Your task to perform on an android device: change the clock style Image 0: 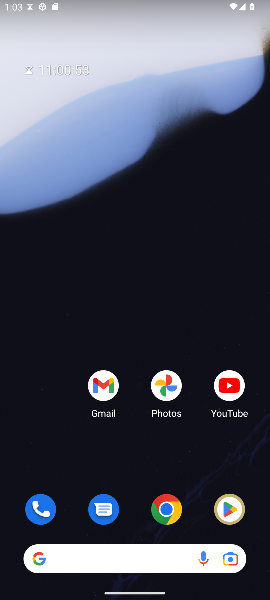
Step 0: press home button
Your task to perform on an android device: change the clock style Image 1: 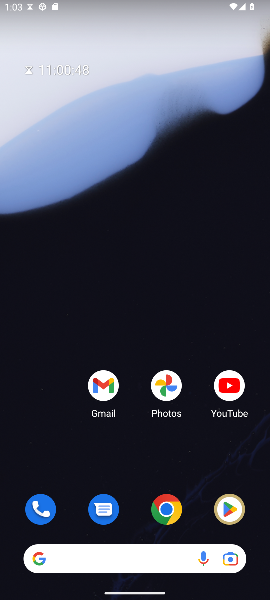
Step 1: drag from (123, 522) to (205, 95)
Your task to perform on an android device: change the clock style Image 2: 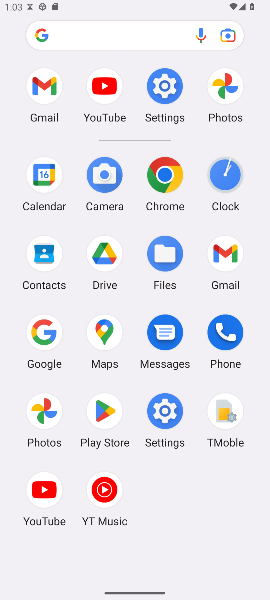
Step 2: click (224, 183)
Your task to perform on an android device: change the clock style Image 3: 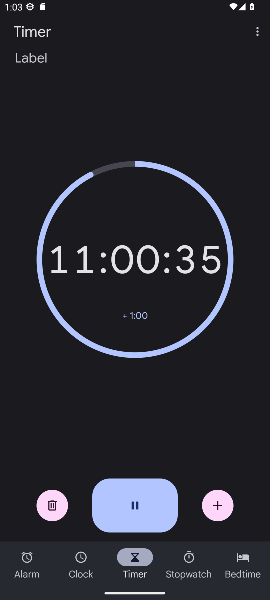
Step 3: click (257, 43)
Your task to perform on an android device: change the clock style Image 4: 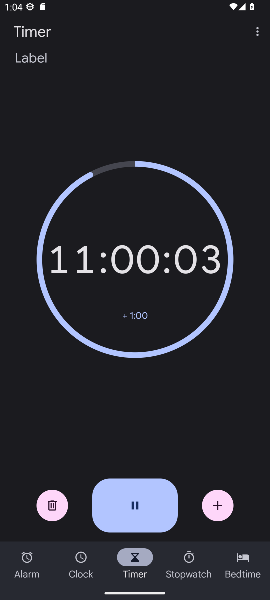
Step 4: click (251, 28)
Your task to perform on an android device: change the clock style Image 5: 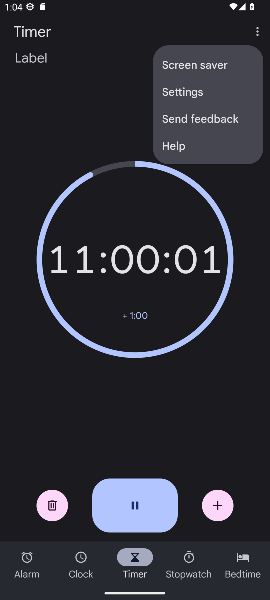
Step 5: click (179, 93)
Your task to perform on an android device: change the clock style Image 6: 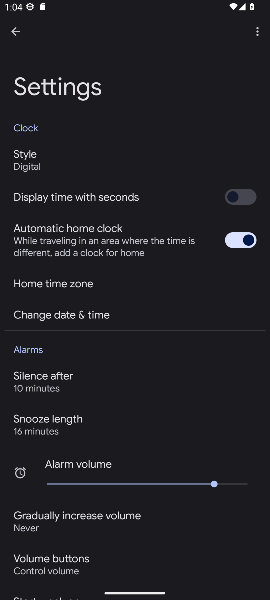
Step 6: click (35, 161)
Your task to perform on an android device: change the clock style Image 7: 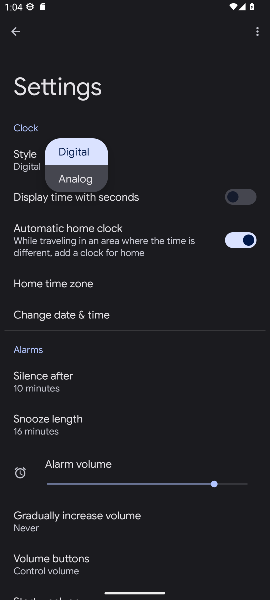
Step 7: click (82, 176)
Your task to perform on an android device: change the clock style Image 8: 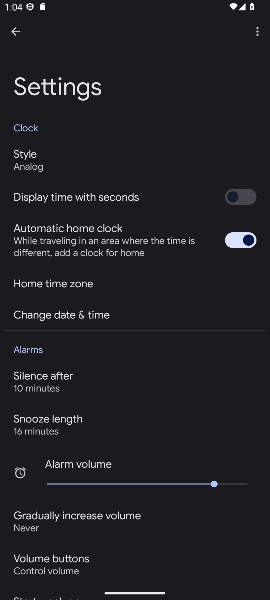
Step 8: task complete